Your task to perform on an android device: Search for pizza restaurants on Maps Image 0: 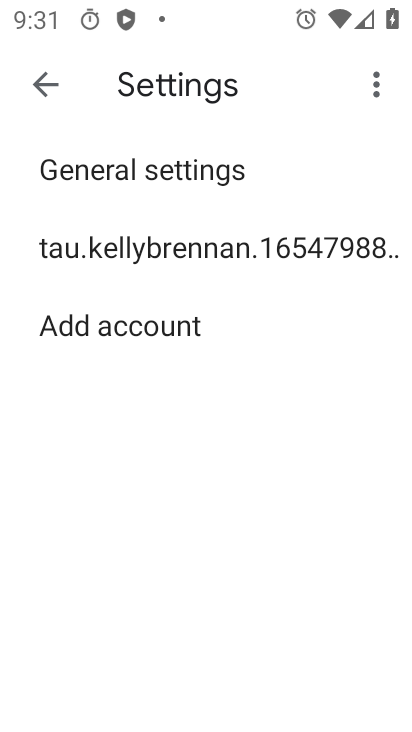
Step 0: press home button
Your task to perform on an android device: Search for pizza restaurants on Maps Image 1: 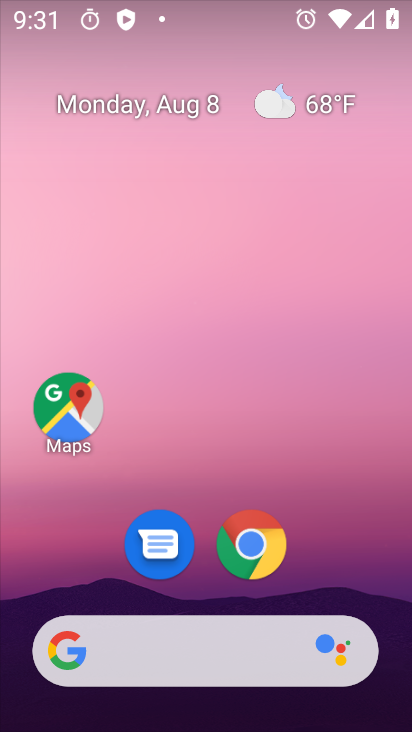
Step 1: drag from (338, 569) to (361, 120)
Your task to perform on an android device: Search for pizza restaurants on Maps Image 2: 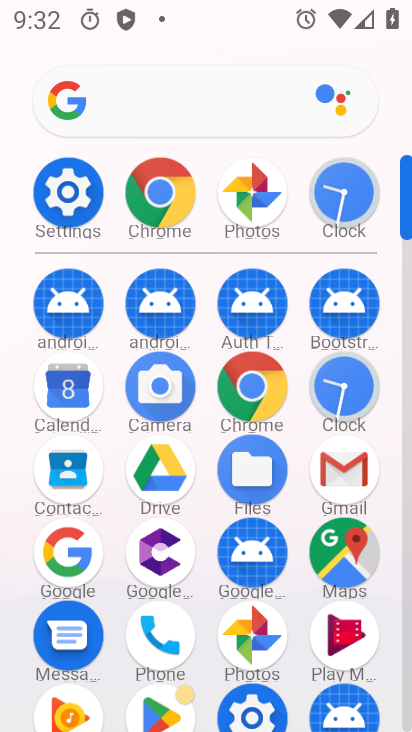
Step 2: click (344, 551)
Your task to perform on an android device: Search for pizza restaurants on Maps Image 3: 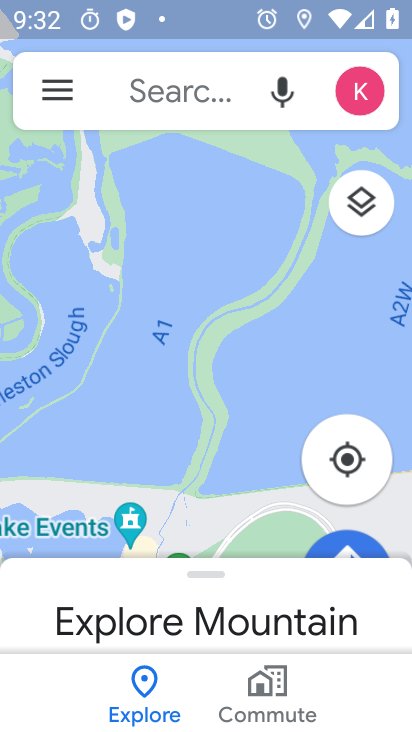
Step 3: click (140, 90)
Your task to perform on an android device: Search for pizza restaurants on Maps Image 4: 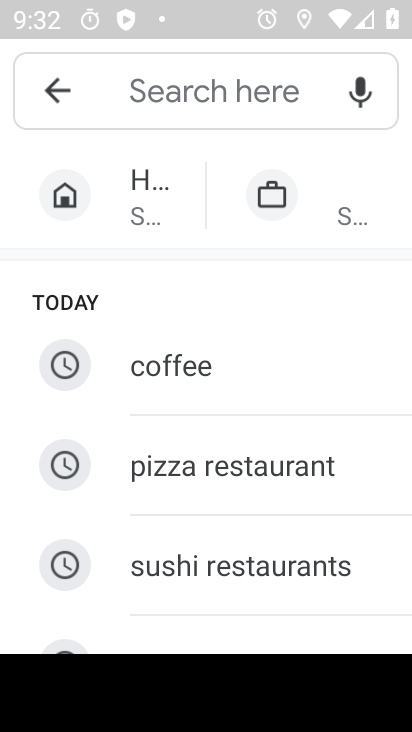
Step 4: click (199, 499)
Your task to perform on an android device: Search for pizza restaurants on Maps Image 5: 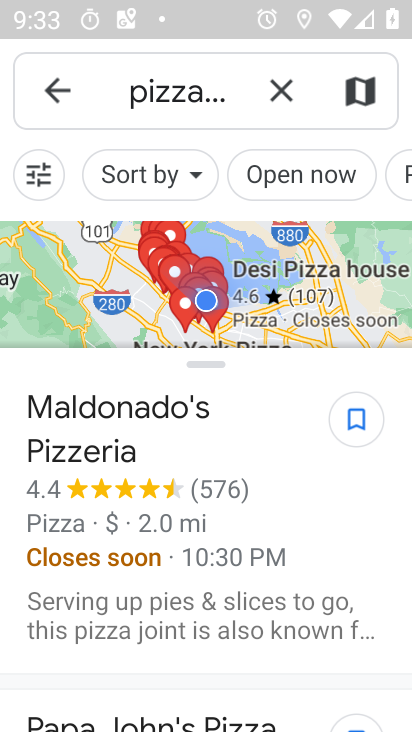
Step 5: task complete